Your task to perform on an android device: Go to CNN.com Image 0: 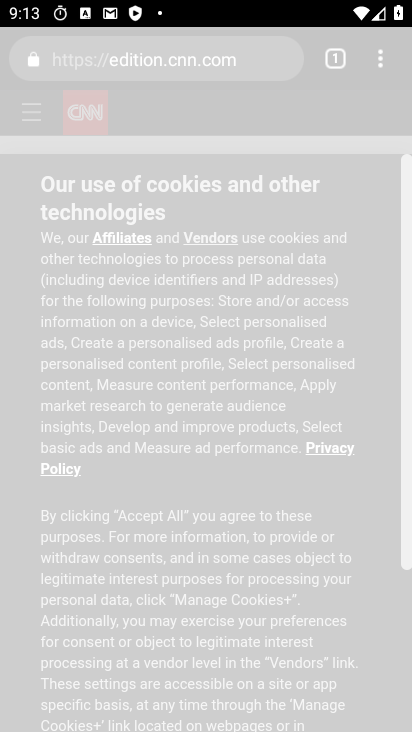
Step 0: click (254, 627)
Your task to perform on an android device: Go to CNN.com Image 1: 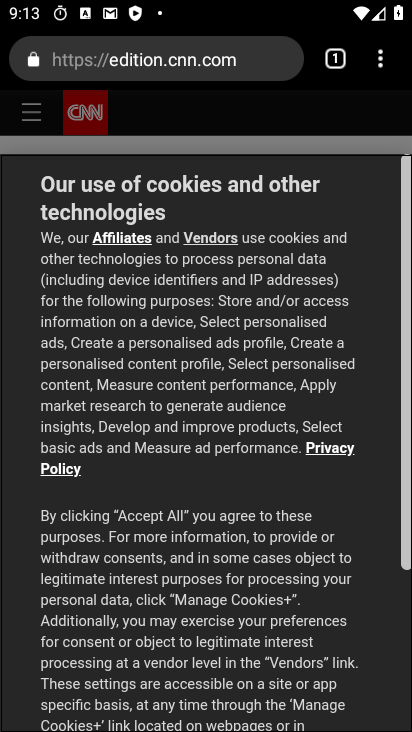
Step 1: task complete